Your task to perform on an android device: Toggle the flashlight Image 0: 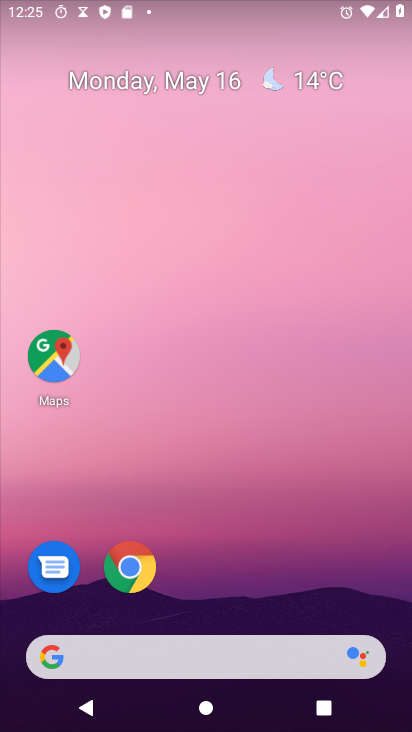
Step 0: drag from (240, 614) to (298, 56)
Your task to perform on an android device: Toggle the flashlight Image 1: 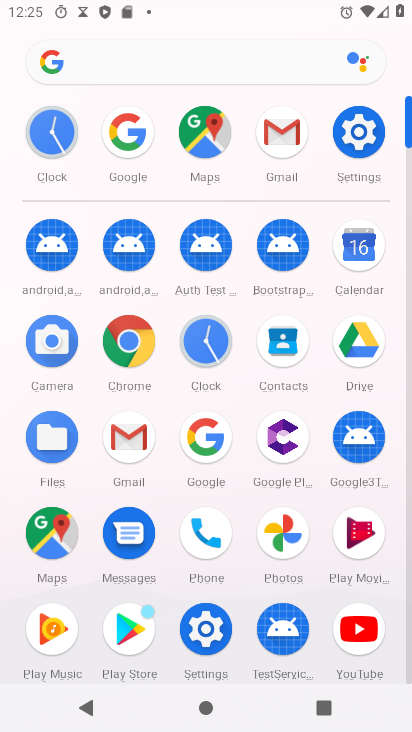
Step 1: click (357, 134)
Your task to perform on an android device: Toggle the flashlight Image 2: 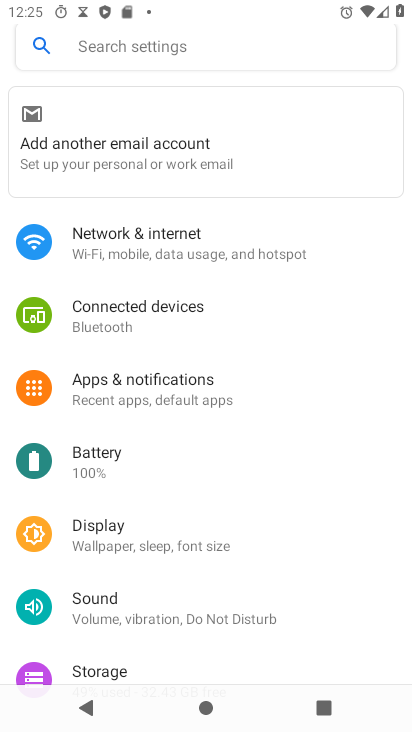
Step 2: task complete